Your task to perform on an android device: Open Google Maps Image 0: 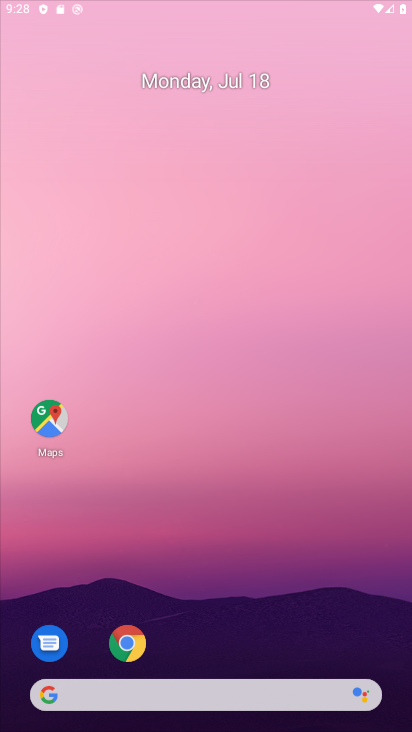
Step 0: press home button
Your task to perform on an android device: Open Google Maps Image 1: 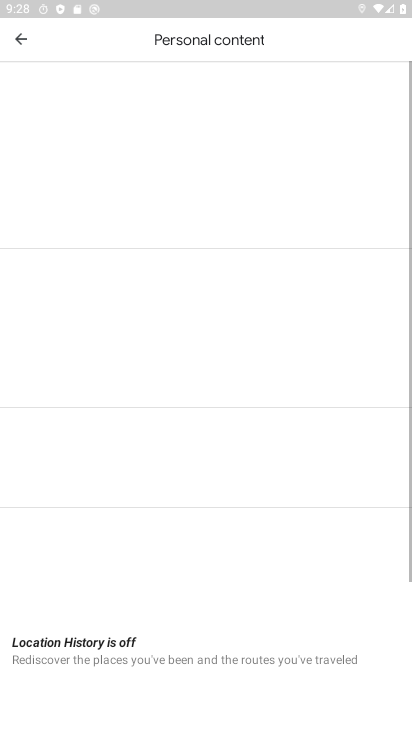
Step 1: drag from (243, 279) to (244, 58)
Your task to perform on an android device: Open Google Maps Image 2: 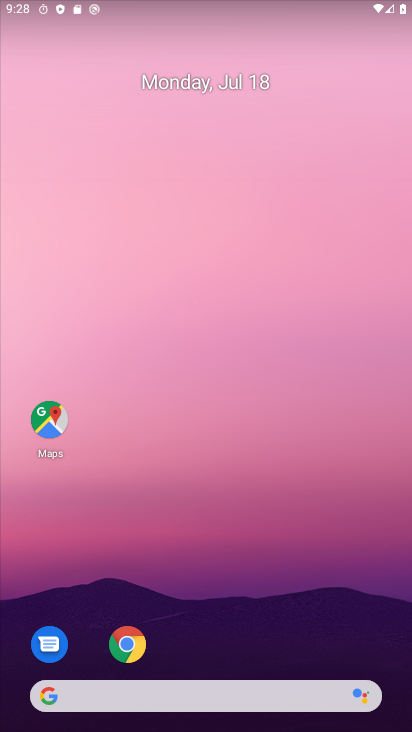
Step 2: click (48, 417)
Your task to perform on an android device: Open Google Maps Image 3: 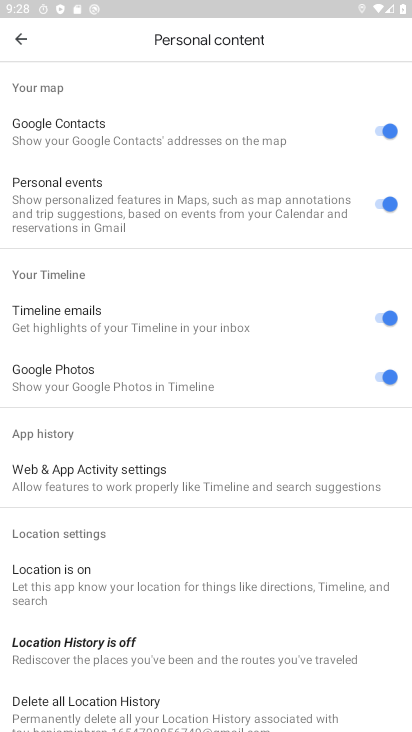
Step 3: click (30, 34)
Your task to perform on an android device: Open Google Maps Image 4: 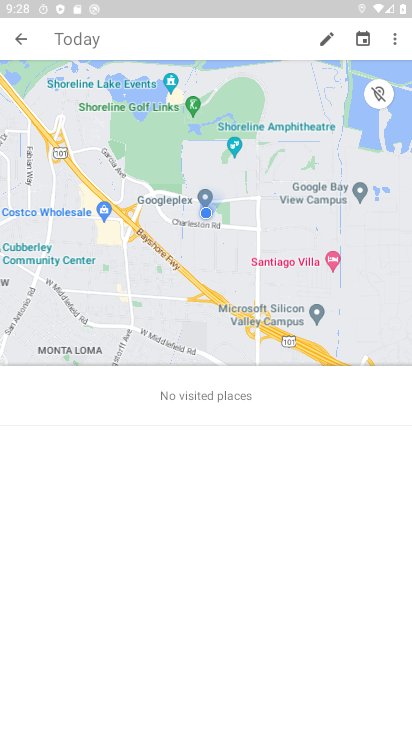
Step 4: click (16, 35)
Your task to perform on an android device: Open Google Maps Image 5: 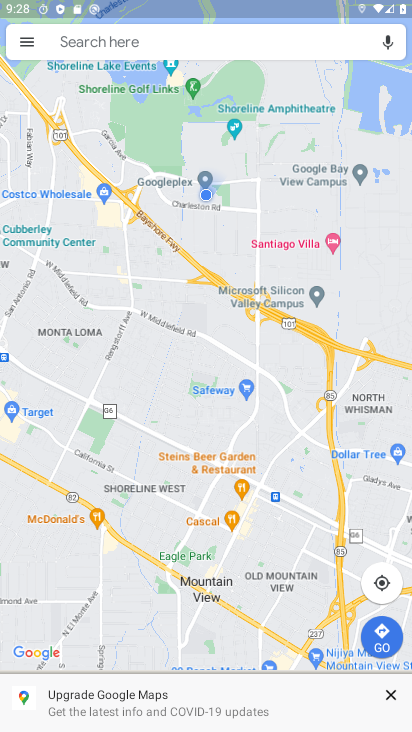
Step 5: task complete